Your task to perform on an android device: Go to Wikipedia Image 0: 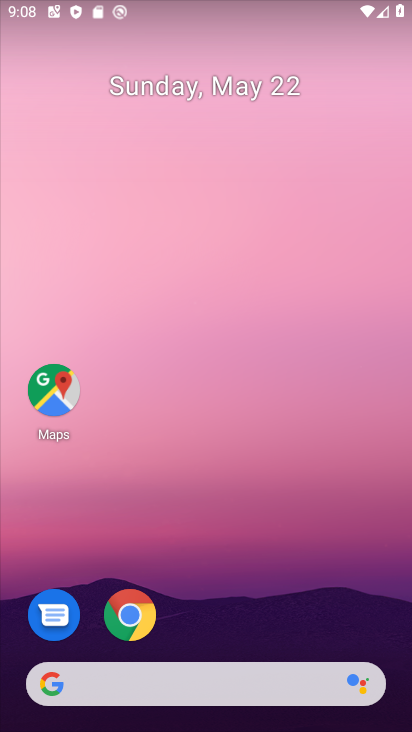
Step 0: drag from (214, 464) to (210, 257)
Your task to perform on an android device: Go to Wikipedia Image 1: 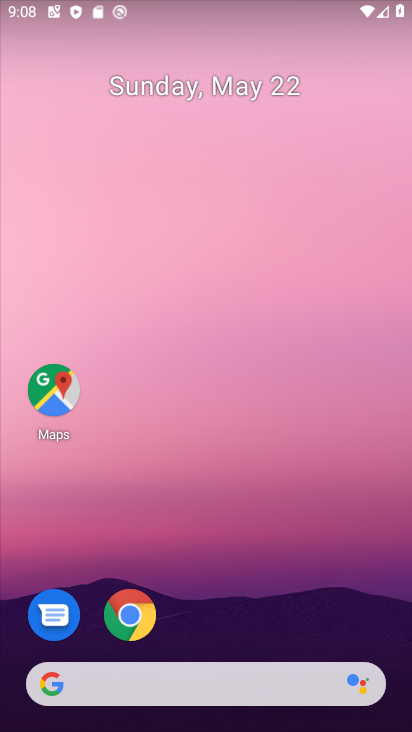
Step 1: click (141, 616)
Your task to perform on an android device: Go to Wikipedia Image 2: 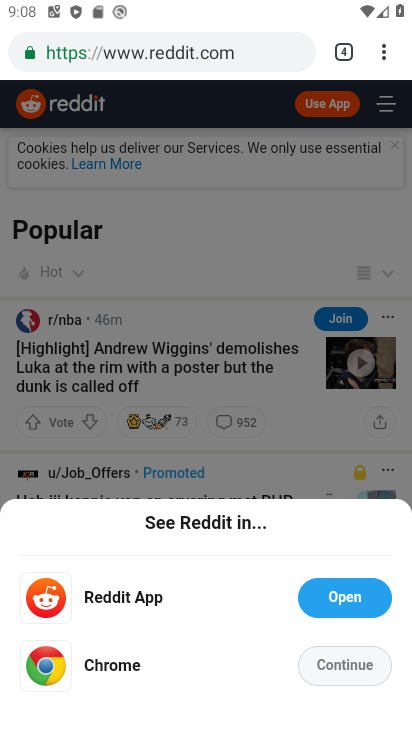
Step 2: click (377, 55)
Your task to perform on an android device: Go to Wikipedia Image 3: 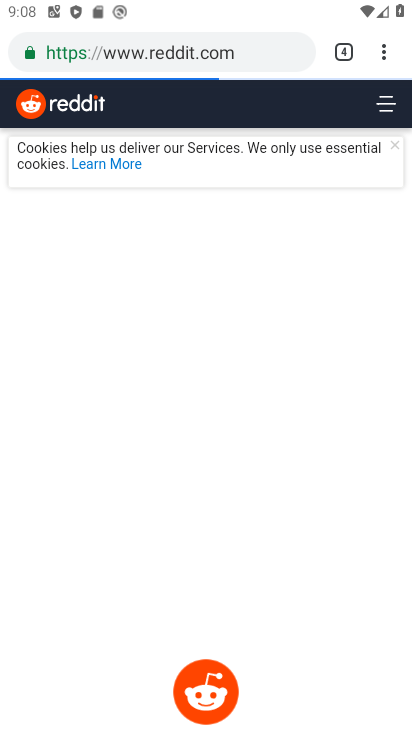
Step 3: click (383, 42)
Your task to perform on an android device: Go to Wikipedia Image 4: 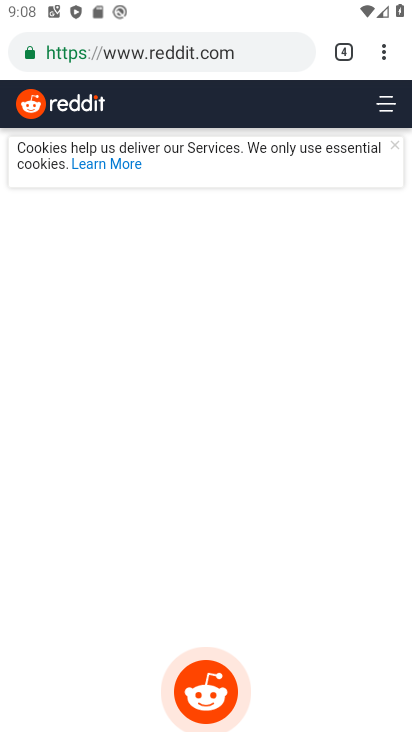
Step 4: click (376, 45)
Your task to perform on an android device: Go to Wikipedia Image 5: 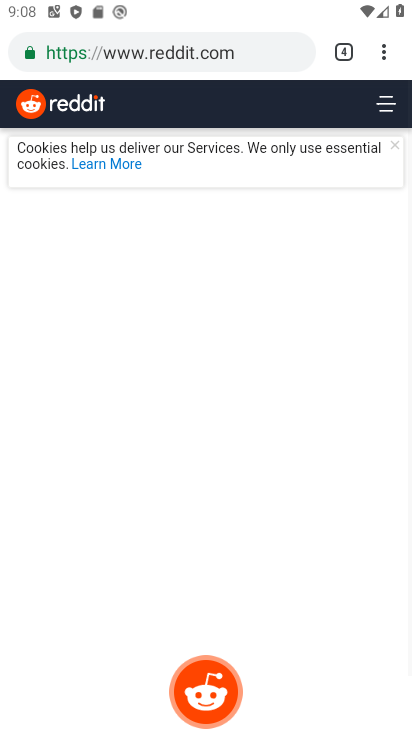
Step 5: click (387, 64)
Your task to perform on an android device: Go to Wikipedia Image 6: 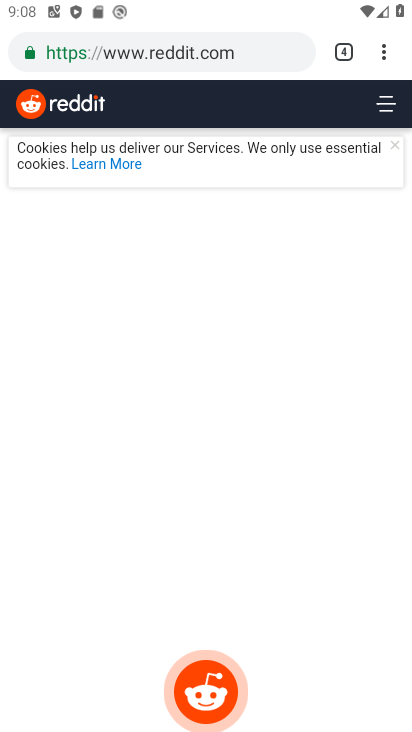
Step 6: click (371, 53)
Your task to perform on an android device: Go to Wikipedia Image 7: 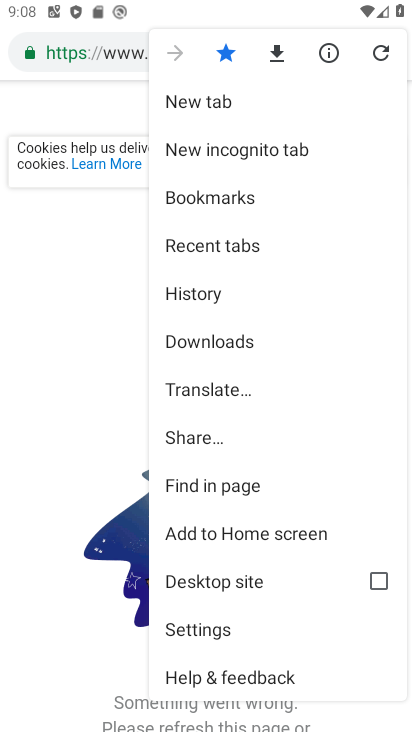
Step 7: click (202, 99)
Your task to perform on an android device: Go to Wikipedia Image 8: 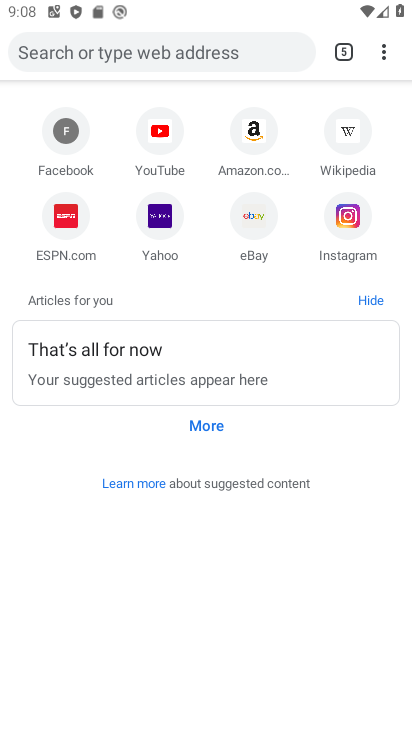
Step 8: click (353, 130)
Your task to perform on an android device: Go to Wikipedia Image 9: 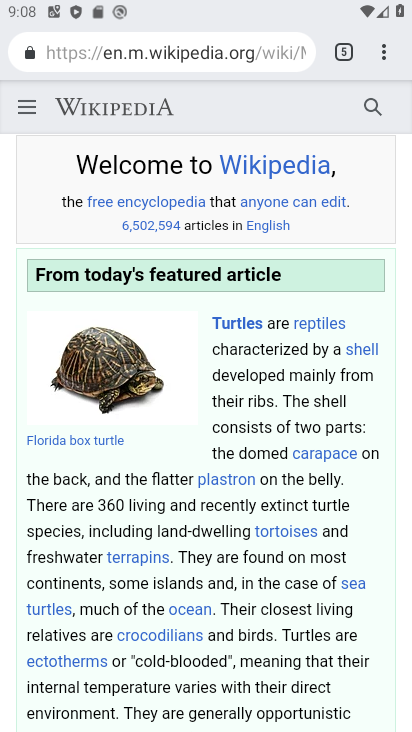
Step 9: click (242, 606)
Your task to perform on an android device: Go to Wikipedia Image 10: 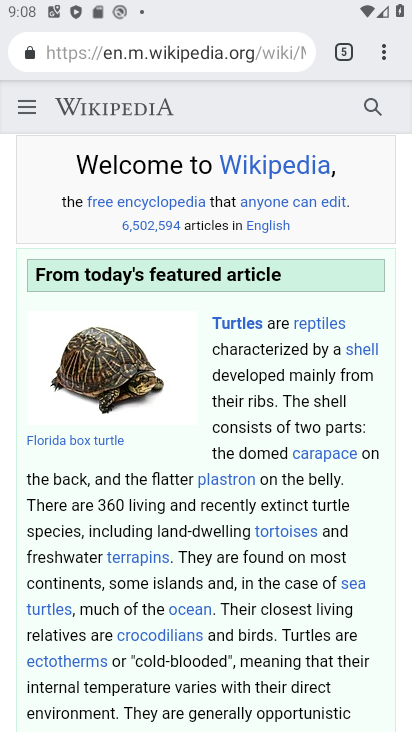
Step 10: task complete